Your task to perform on an android device: Is it going to rain today? Image 0: 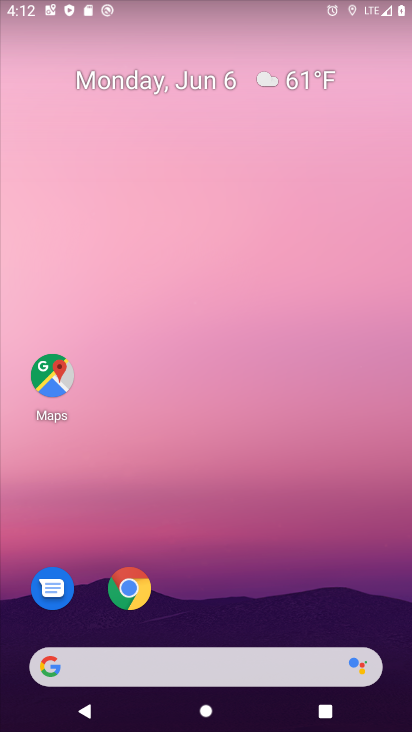
Step 0: click (234, 651)
Your task to perform on an android device: Is it going to rain today? Image 1: 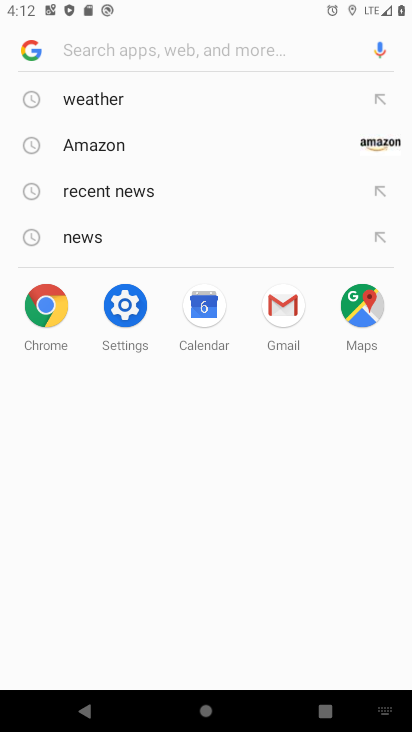
Step 1: type "Is it going to rain today?"
Your task to perform on an android device: Is it going to rain today? Image 2: 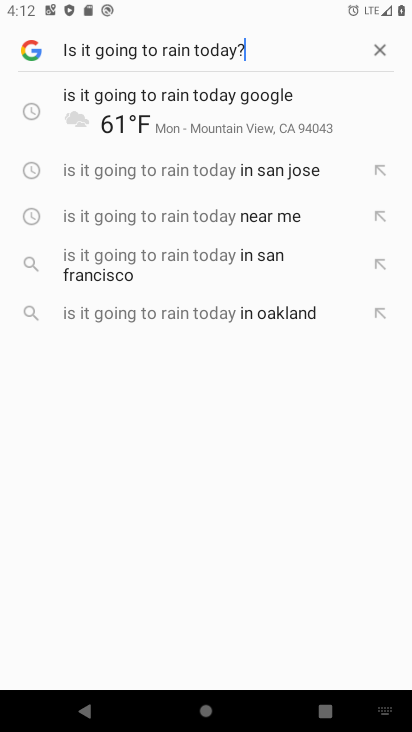
Step 2: click (224, 99)
Your task to perform on an android device: Is it going to rain today? Image 3: 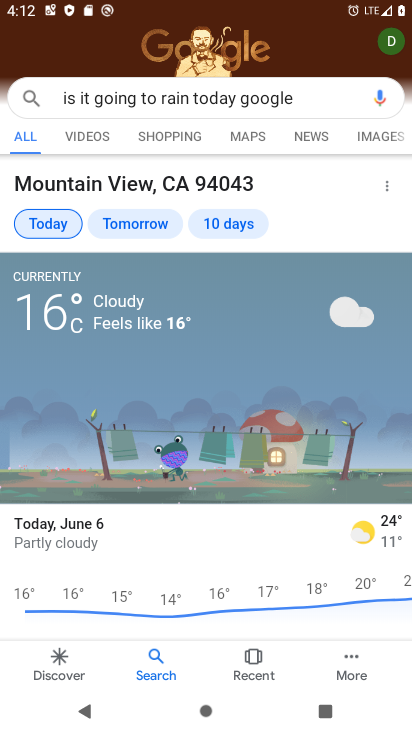
Step 3: task complete